Your task to perform on an android device: change the clock display to analog Image 0: 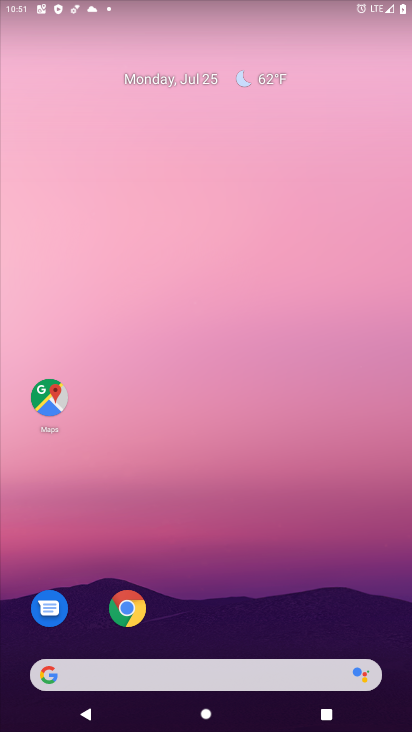
Step 0: drag from (291, 527) to (318, 5)
Your task to perform on an android device: change the clock display to analog Image 1: 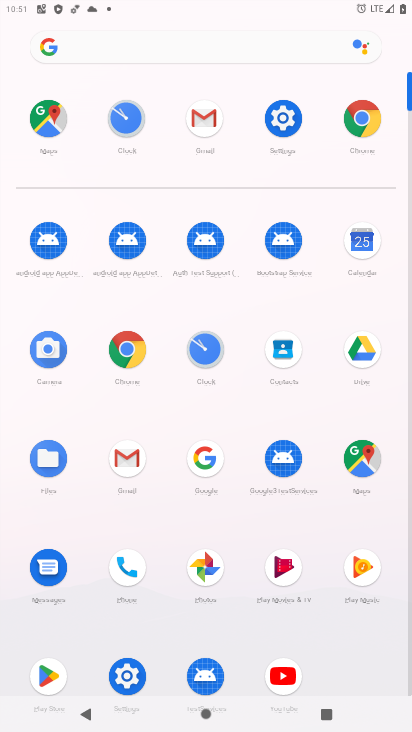
Step 1: click (198, 356)
Your task to perform on an android device: change the clock display to analog Image 2: 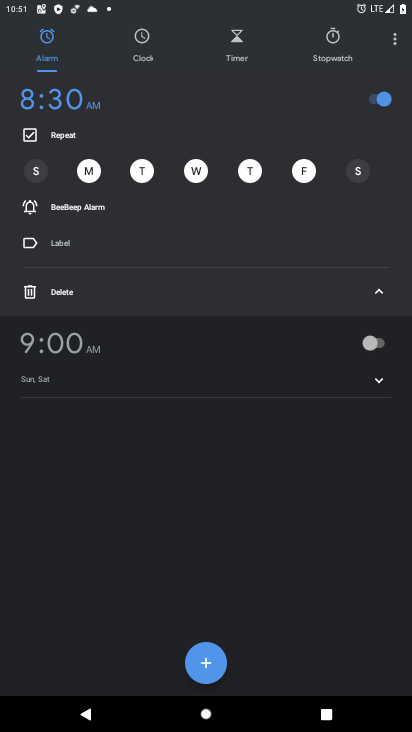
Step 2: click (395, 40)
Your task to perform on an android device: change the clock display to analog Image 3: 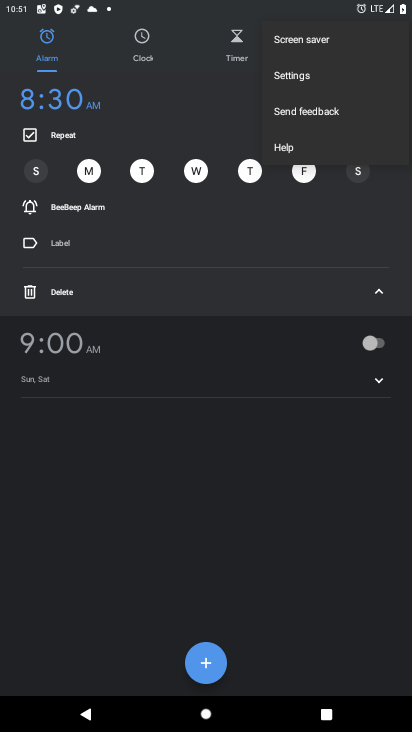
Step 3: click (309, 442)
Your task to perform on an android device: change the clock display to analog Image 4: 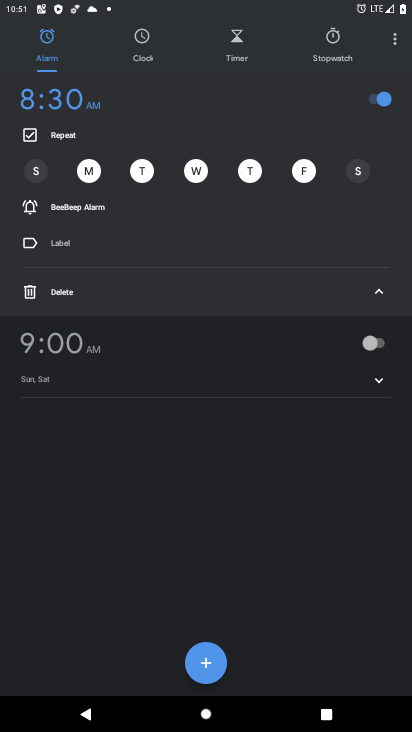
Step 4: click (387, 40)
Your task to perform on an android device: change the clock display to analog Image 5: 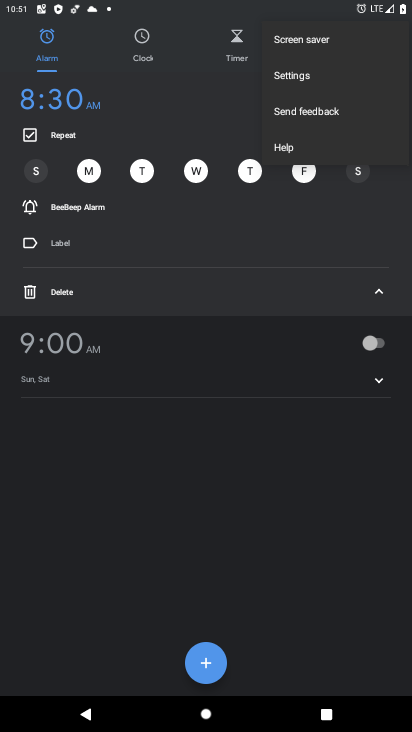
Step 5: click (286, 72)
Your task to perform on an android device: change the clock display to analog Image 6: 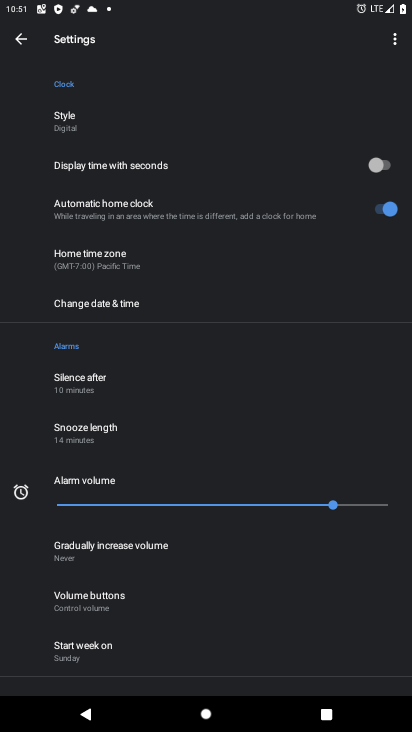
Step 6: click (87, 130)
Your task to perform on an android device: change the clock display to analog Image 7: 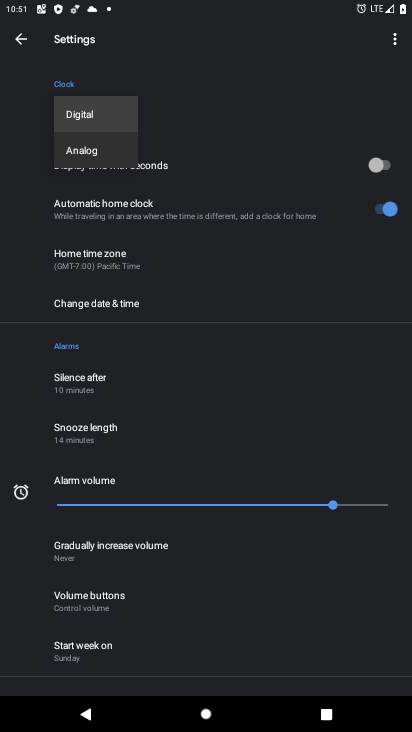
Step 7: click (95, 148)
Your task to perform on an android device: change the clock display to analog Image 8: 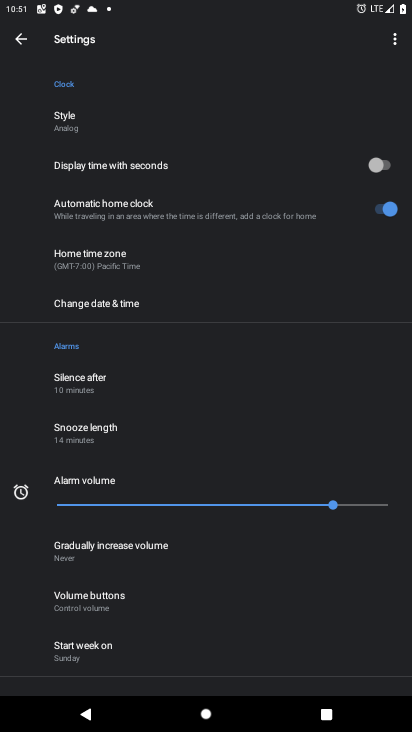
Step 8: task complete